Your task to perform on an android device: toggle javascript in the chrome app Image 0: 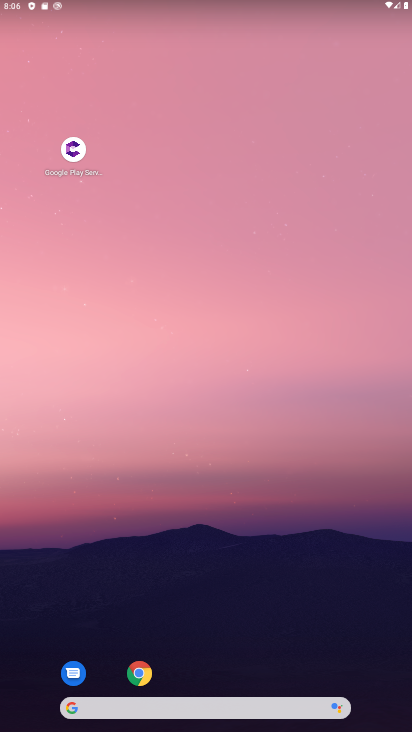
Step 0: click (144, 675)
Your task to perform on an android device: toggle javascript in the chrome app Image 1: 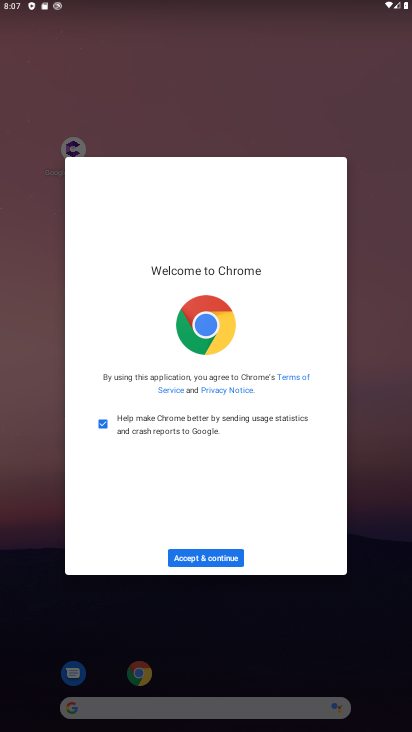
Step 1: click (184, 557)
Your task to perform on an android device: toggle javascript in the chrome app Image 2: 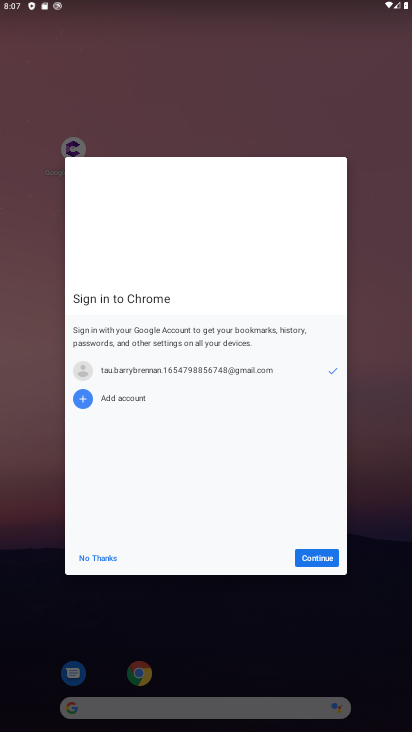
Step 2: click (312, 566)
Your task to perform on an android device: toggle javascript in the chrome app Image 3: 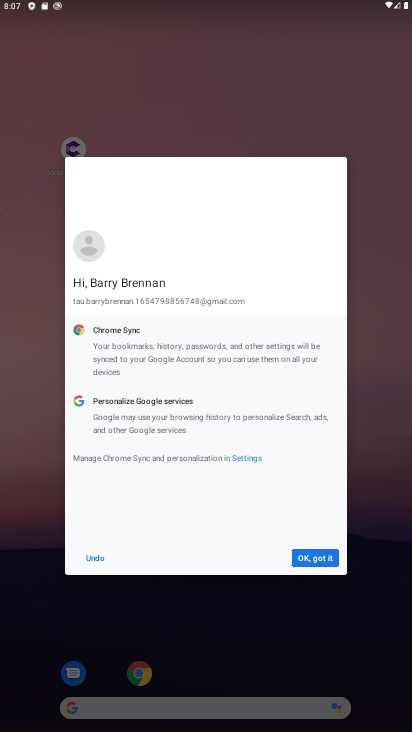
Step 3: click (312, 566)
Your task to perform on an android device: toggle javascript in the chrome app Image 4: 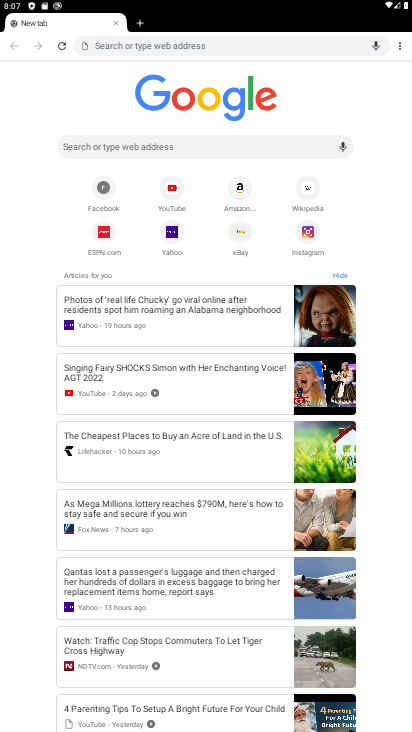
Step 4: click (400, 46)
Your task to perform on an android device: toggle javascript in the chrome app Image 5: 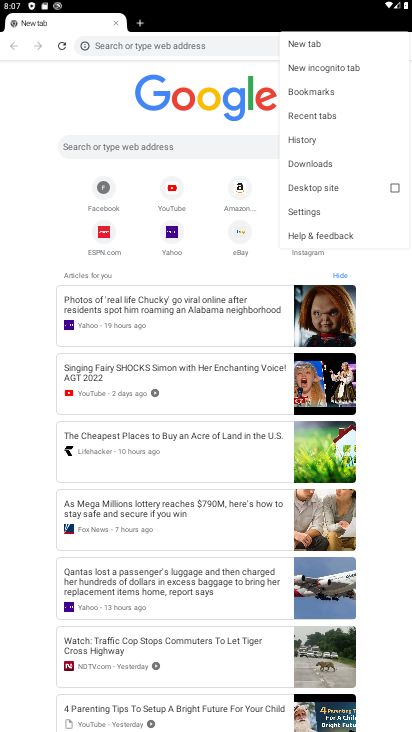
Step 5: click (310, 211)
Your task to perform on an android device: toggle javascript in the chrome app Image 6: 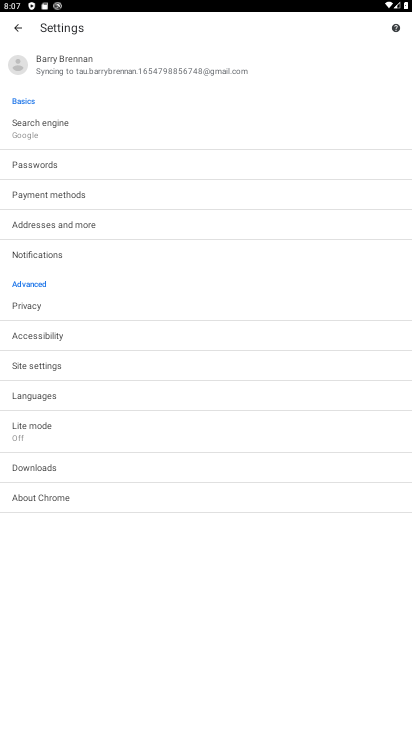
Step 6: click (30, 370)
Your task to perform on an android device: toggle javascript in the chrome app Image 7: 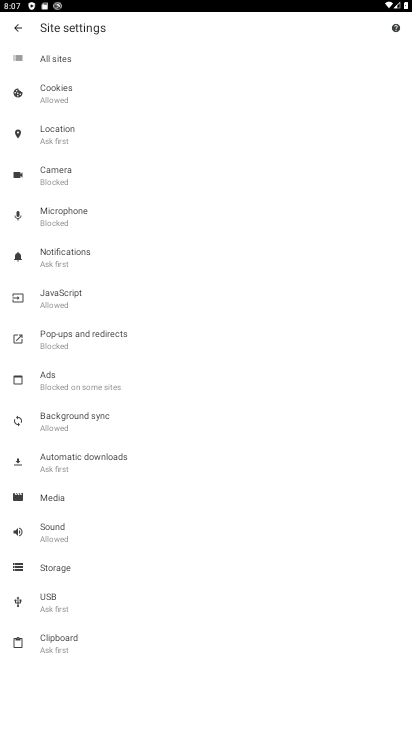
Step 7: click (79, 293)
Your task to perform on an android device: toggle javascript in the chrome app Image 8: 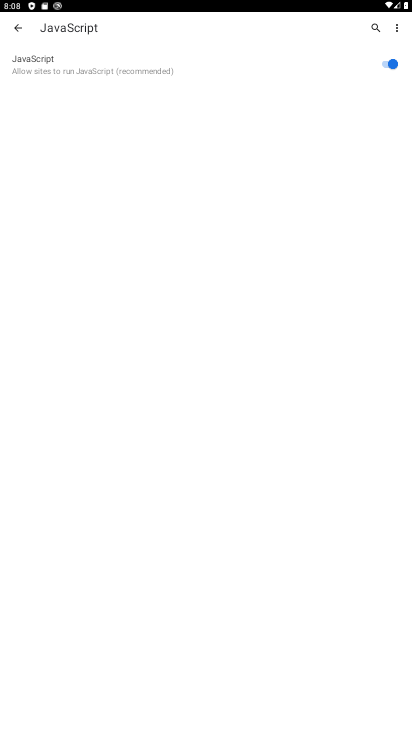
Step 8: click (392, 68)
Your task to perform on an android device: toggle javascript in the chrome app Image 9: 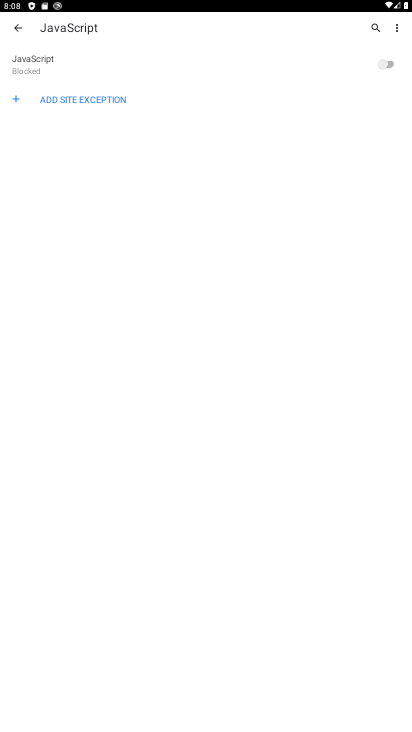
Step 9: task complete